Your task to perform on an android device: turn off data saver in the chrome app Image 0: 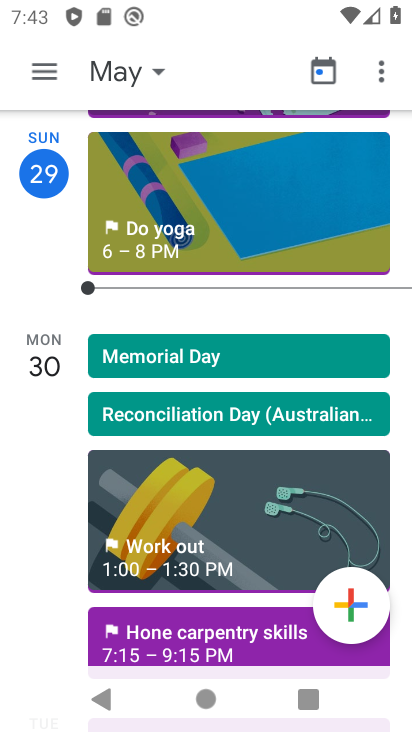
Step 0: press home button
Your task to perform on an android device: turn off data saver in the chrome app Image 1: 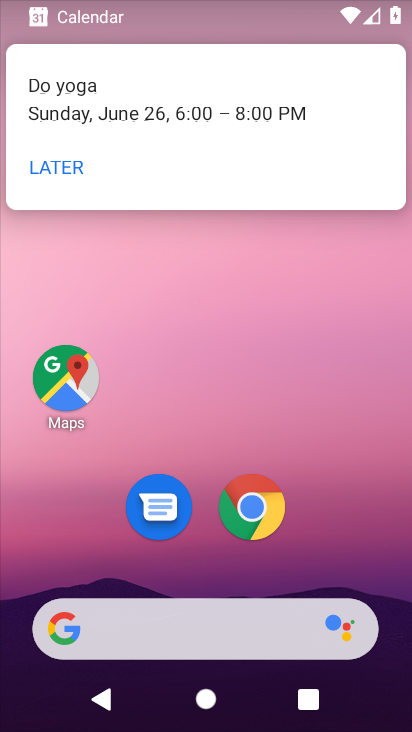
Step 1: click (53, 168)
Your task to perform on an android device: turn off data saver in the chrome app Image 2: 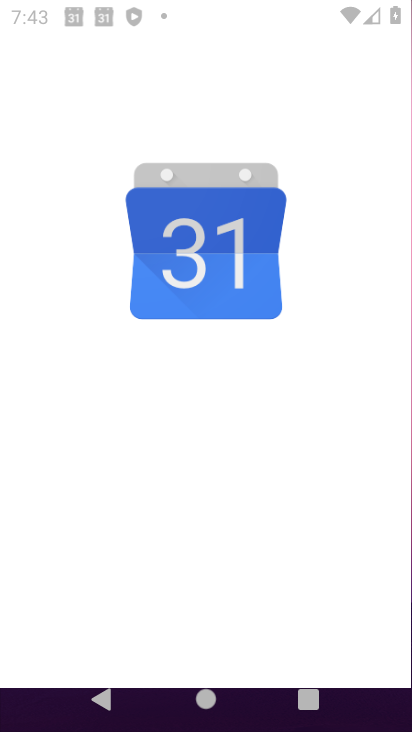
Step 2: click (340, 484)
Your task to perform on an android device: turn off data saver in the chrome app Image 3: 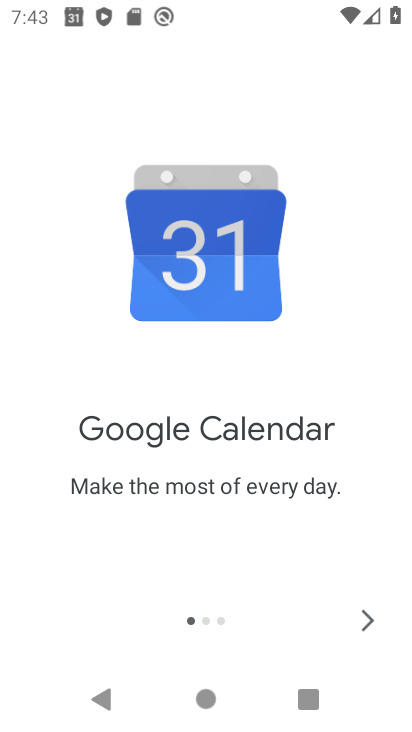
Step 3: press home button
Your task to perform on an android device: turn off data saver in the chrome app Image 4: 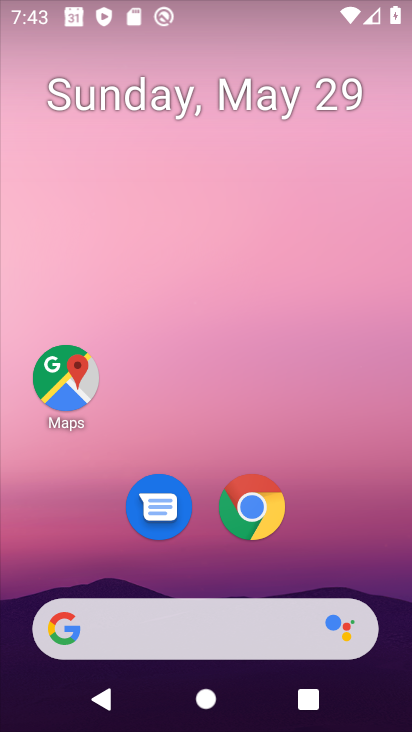
Step 4: drag from (349, 584) to (363, 69)
Your task to perform on an android device: turn off data saver in the chrome app Image 5: 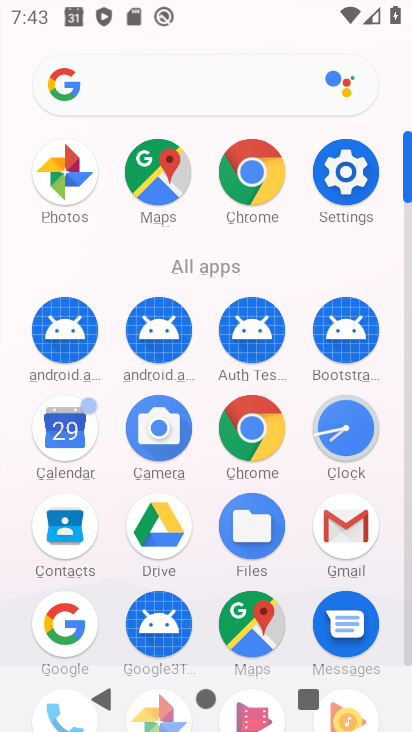
Step 5: click (254, 451)
Your task to perform on an android device: turn off data saver in the chrome app Image 6: 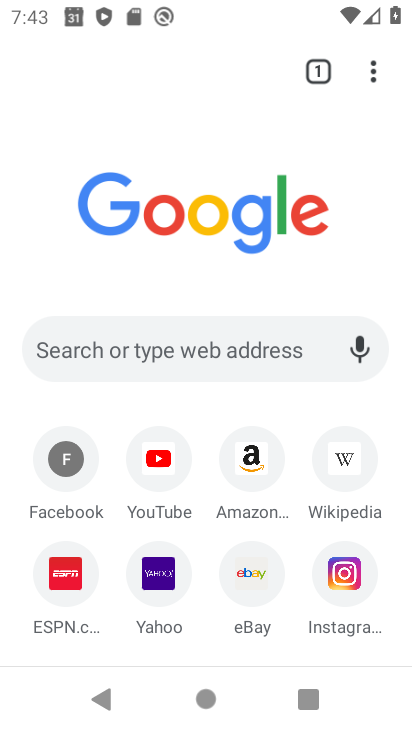
Step 6: drag from (376, 68) to (218, 502)
Your task to perform on an android device: turn off data saver in the chrome app Image 7: 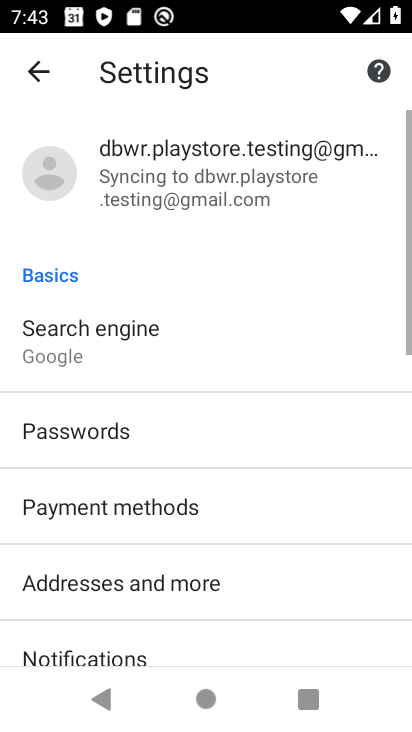
Step 7: drag from (241, 446) to (411, 37)
Your task to perform on an android device: turn off data saver in the chrome app Image 8: 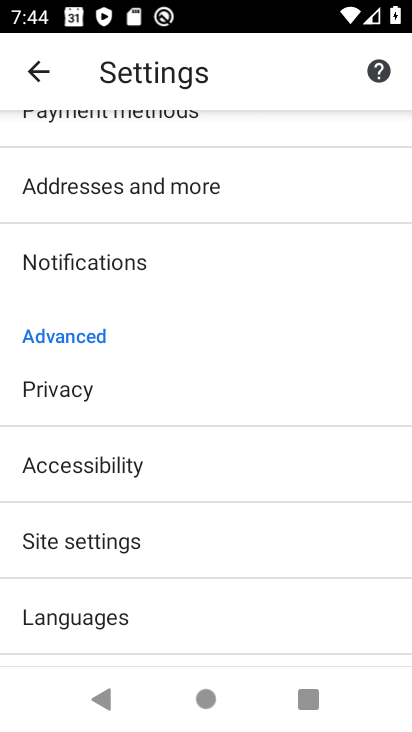
Step 8: click (70, 536)
Your task to perform on an android device: turn off data saver in the chrome app Image 9: 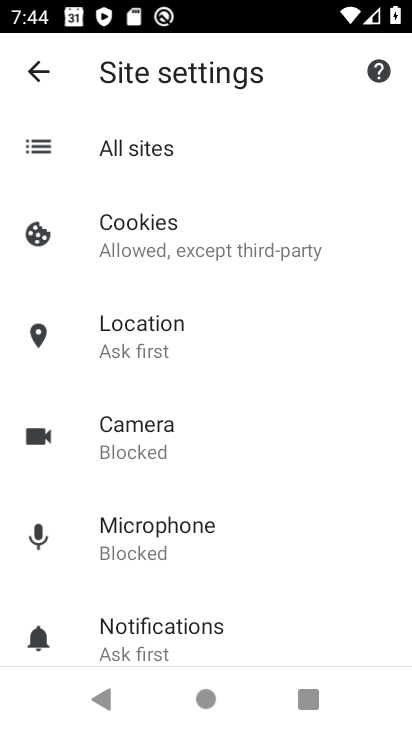
Step 9: click (27, 86)
Your task to perform on an android device: turn off data saver in the chrome app Image 10: 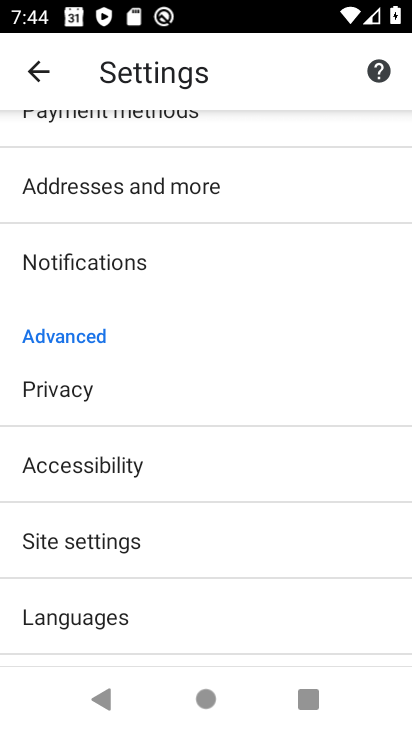
Step 10: drag from (176, 591) to (250, 188)
Your task to perform on an android device: turn off data saver in the chrome app Image 11: 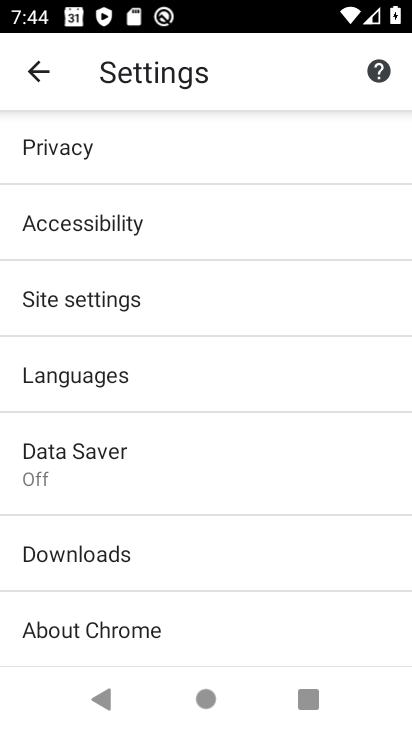
Step 11: click (78, 452)
Your task to perform on an android device: turn off data saver in the chrome app Image 12: 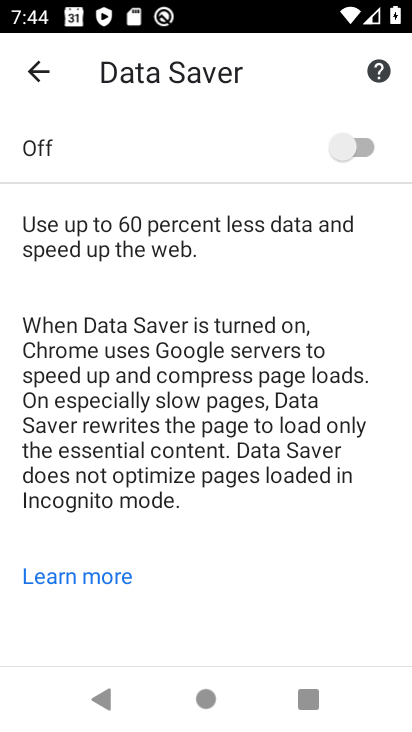
Step 12: task complete